Your task to perform on an android device: What's the weather today? Image 0: 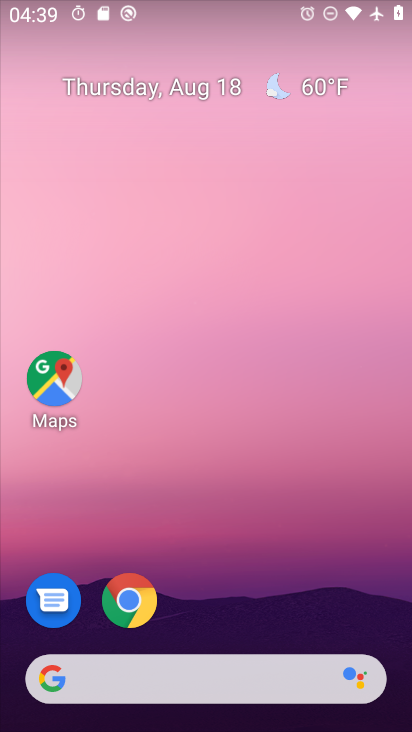
Step 0: press home button
Your task to perform on an android device: What's the weather today? Image 1: 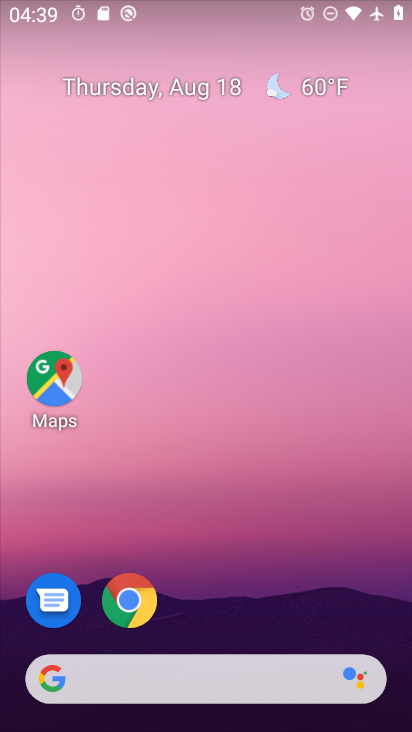
Step 1: click (50, 682)
Your task to perform on an android device: What's the weather today? Image 2: 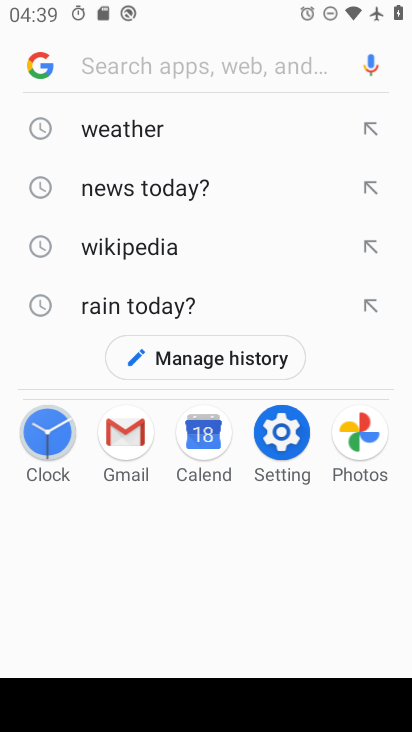
Step 2: type "weather today?"
Your task to perform on an android device: What's the weather today? Image 3: 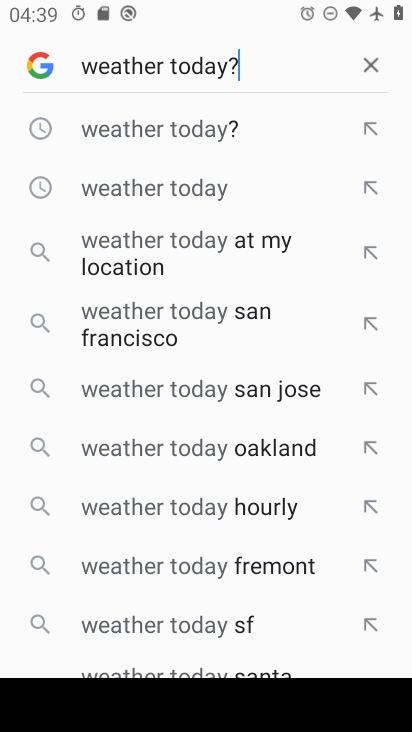
Step 3: press enter
Your task to perform on an android device: What's the weather today? Image 4: 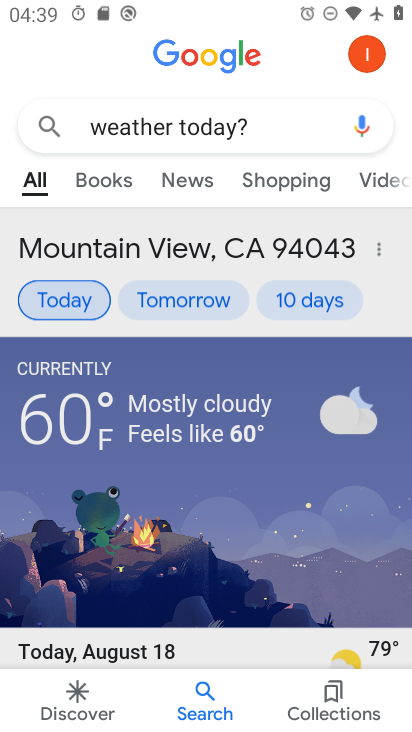
Step 4: task complete